Your task to perform on an android device: What is the news today? Image 0: 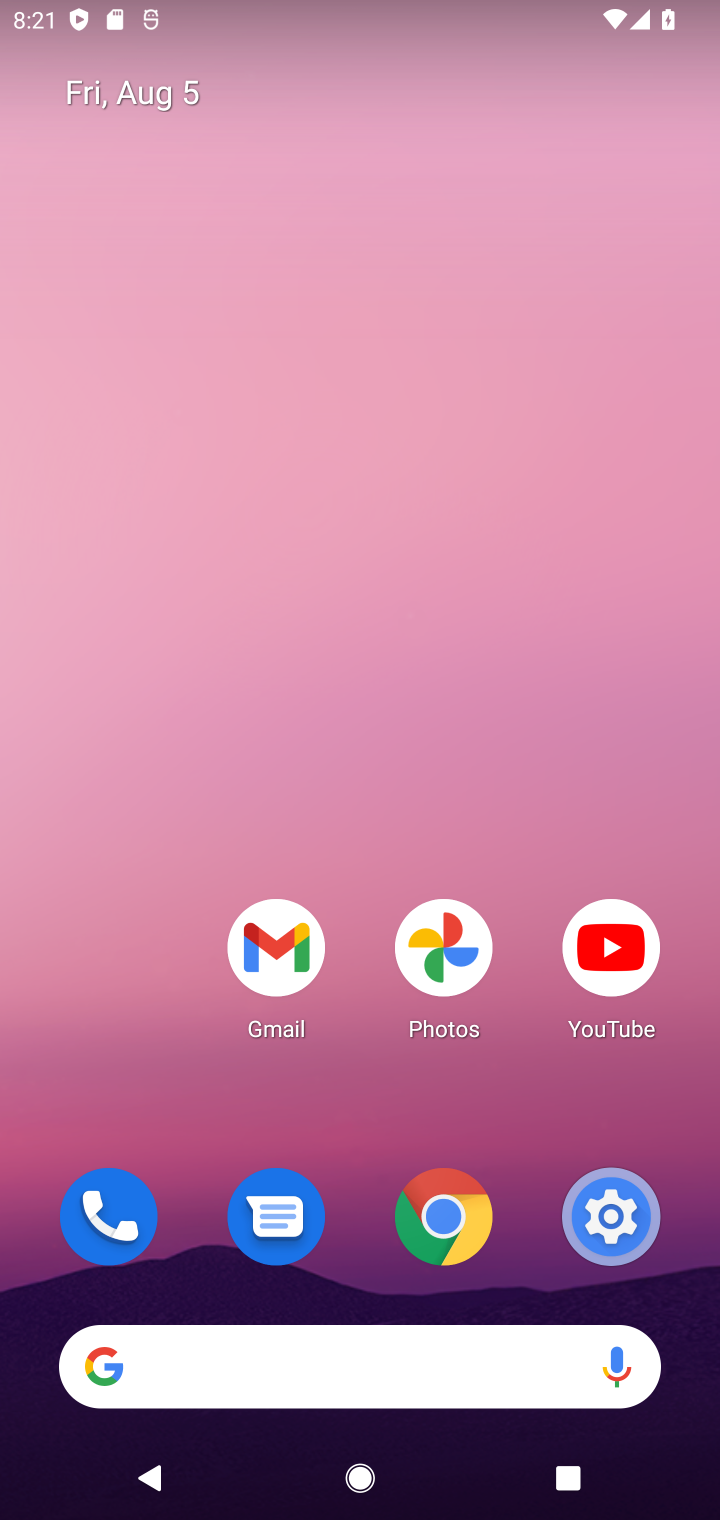
Step 0: click (473, 353)
Your task to perform on an android device: What is the news today? Image 1: 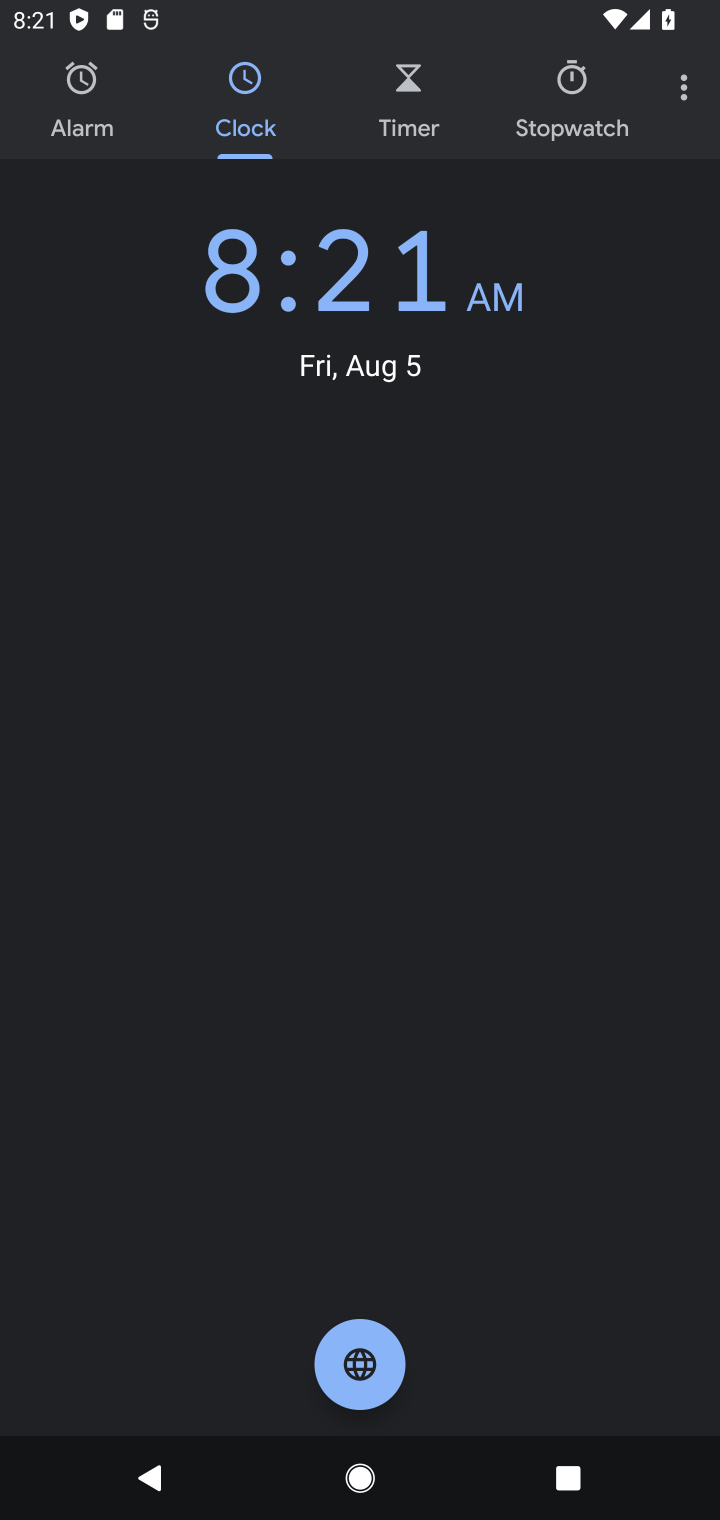
Step 1: drag from (357, 1193) to (488, 320)
Your task to perform on an android device: What is the news today? Image 2: 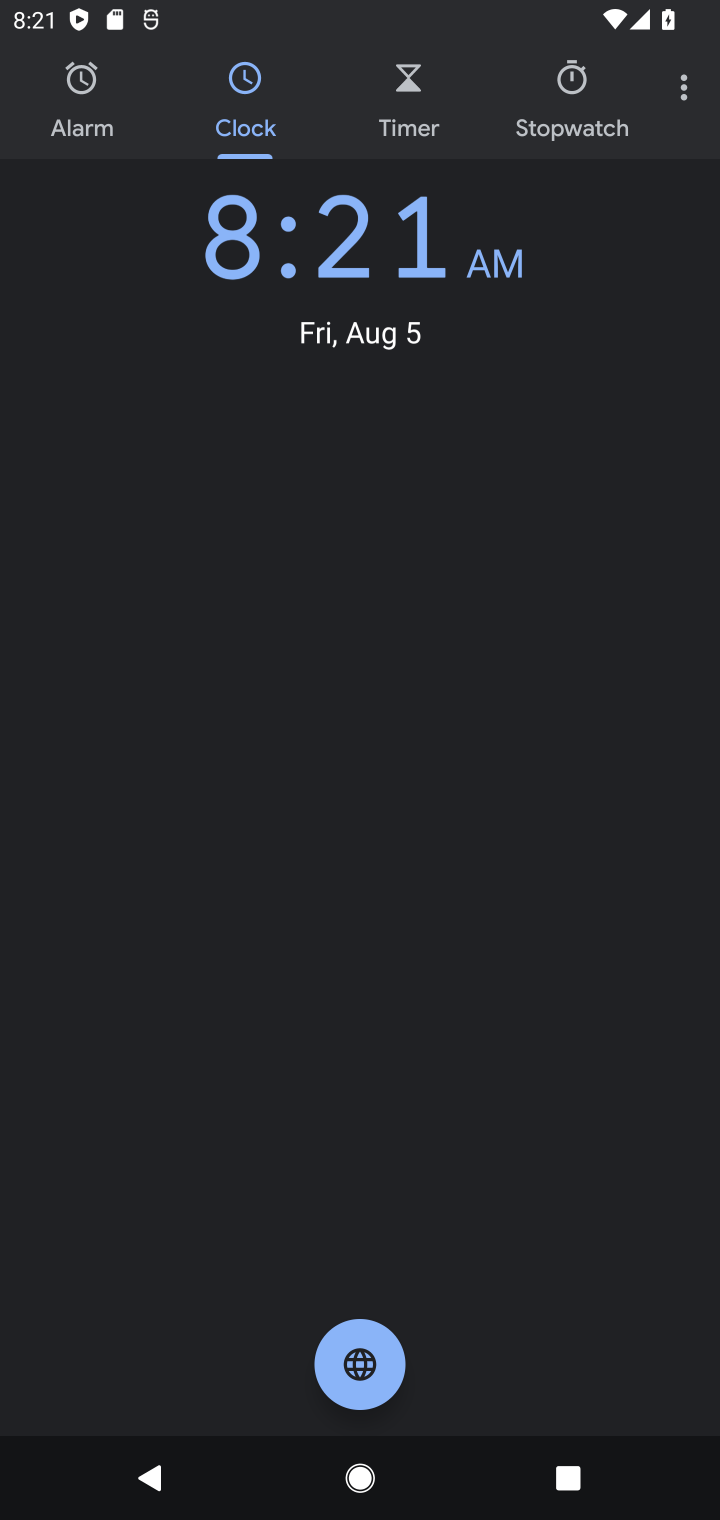
Step 2: press home button
Your task to perform on an android device: What is the news today? Image 3: 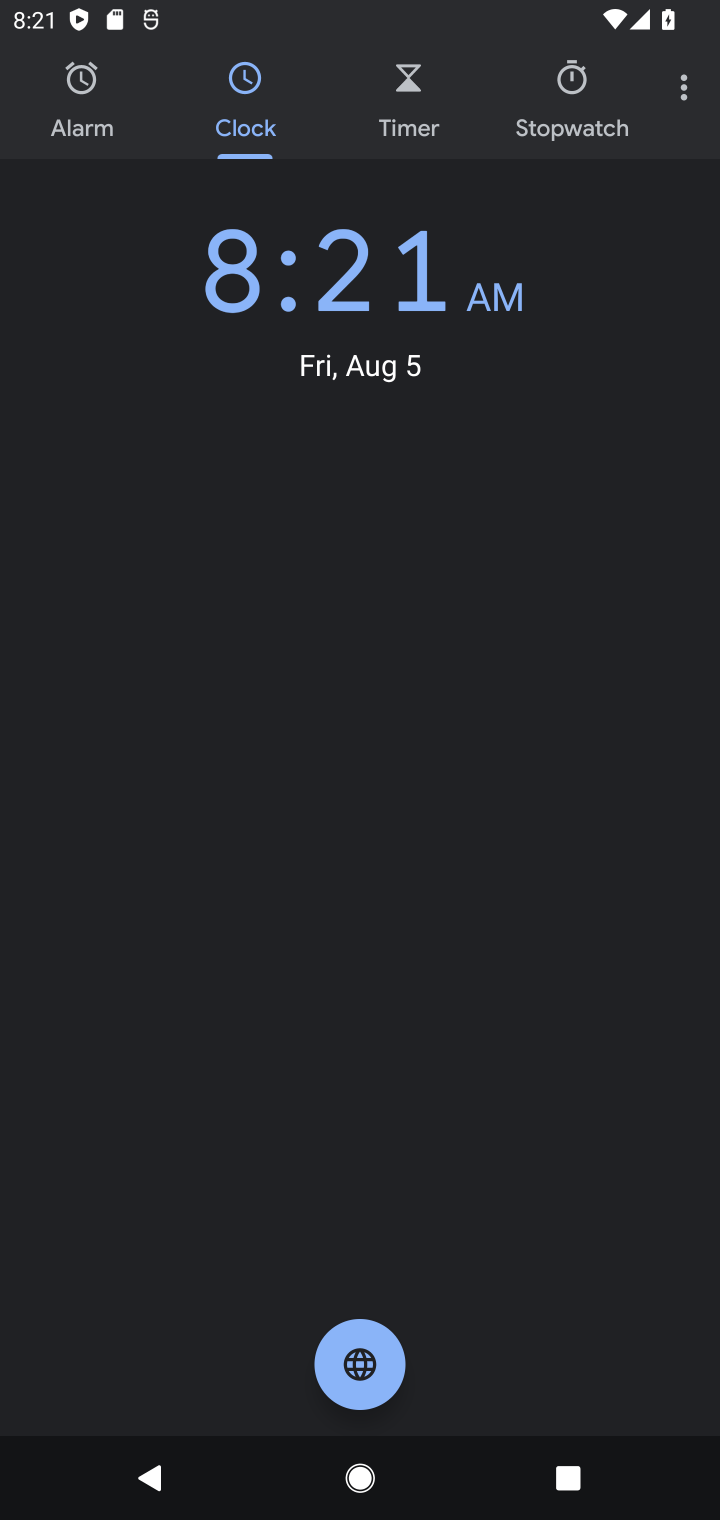
Step 3: drag from (399, 1068) to (554, 119)
Your task to perform on an android device: What is the news today? Image 4: 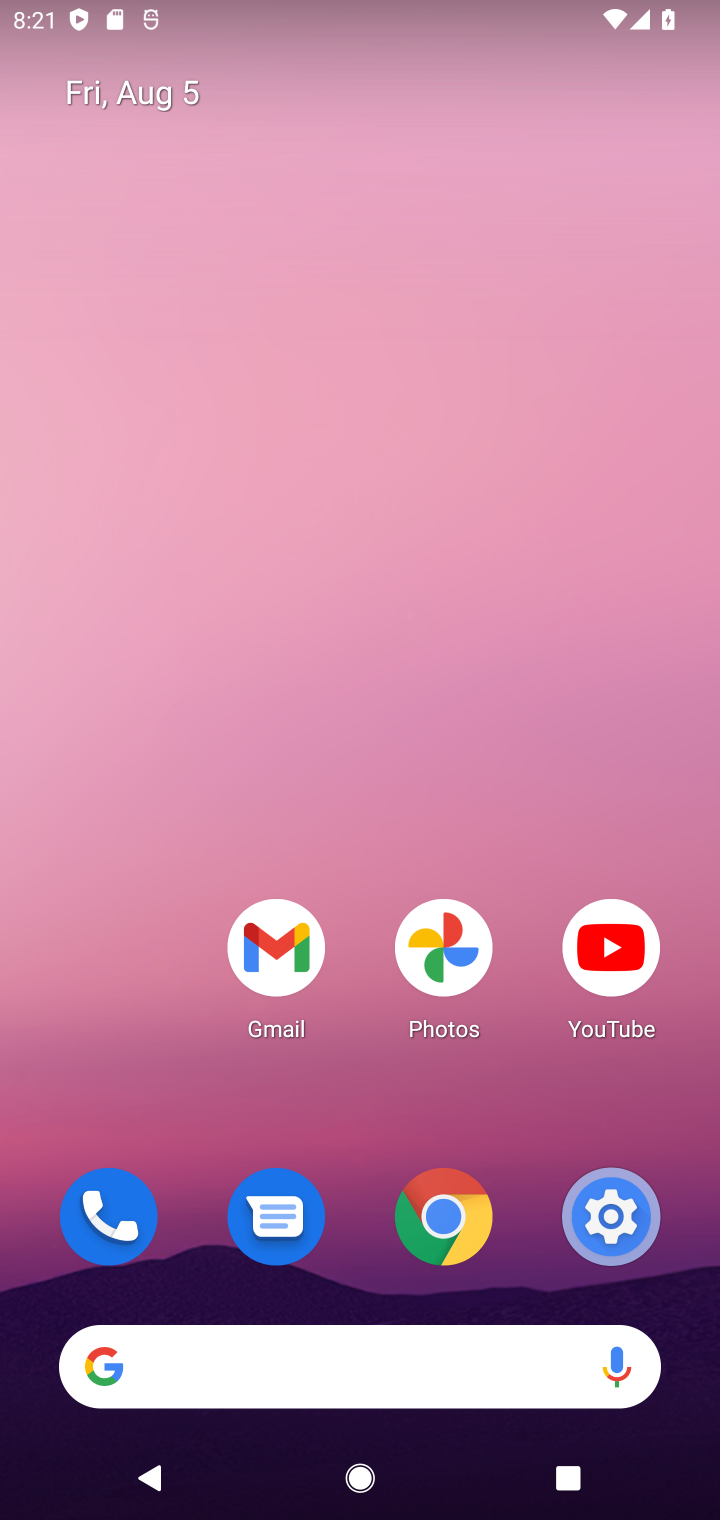
Step 4: drag from (354, 1239) to (385, 199)
Your task to perform on an android device: What is the news today? Image 5: 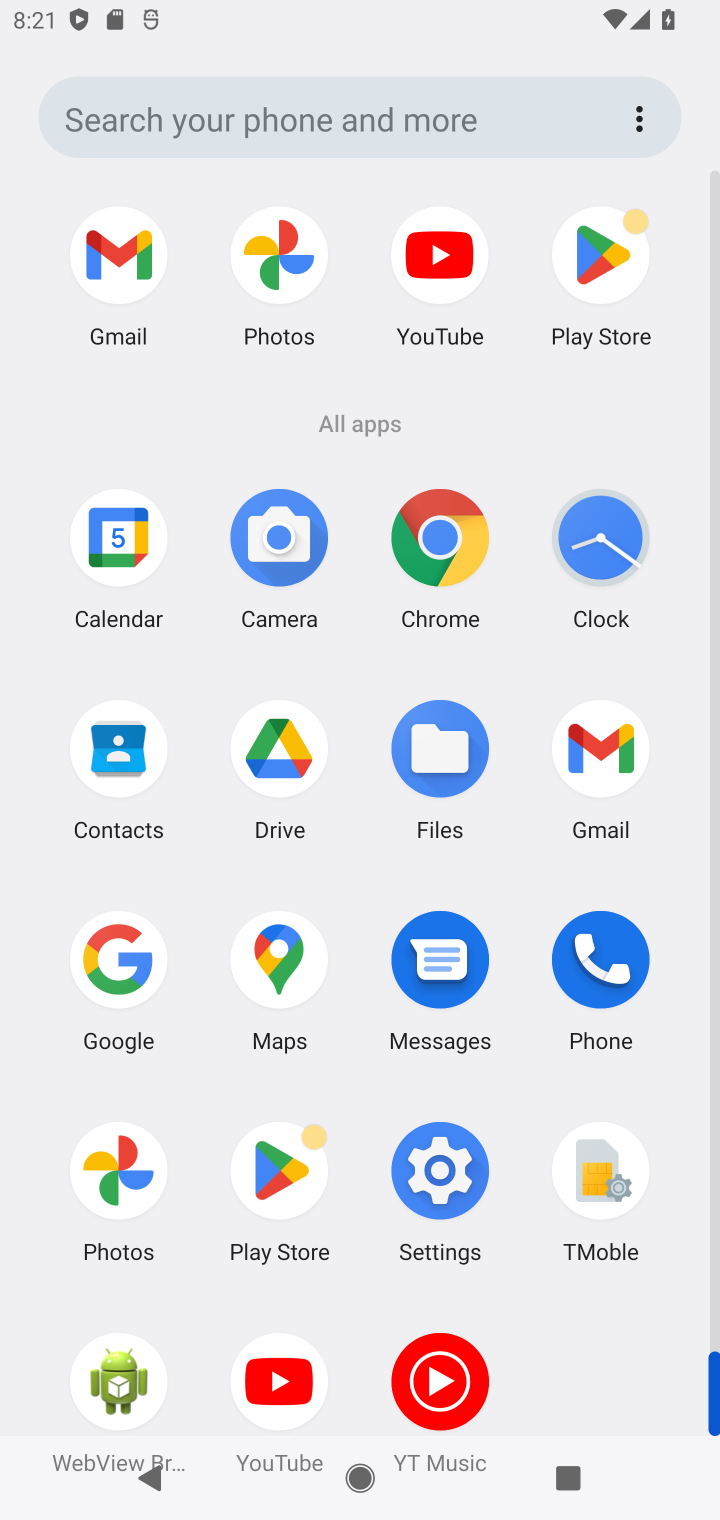
Step 5: click (318, 139)
Your task to perform on an android device: What is the news today? Image 6: 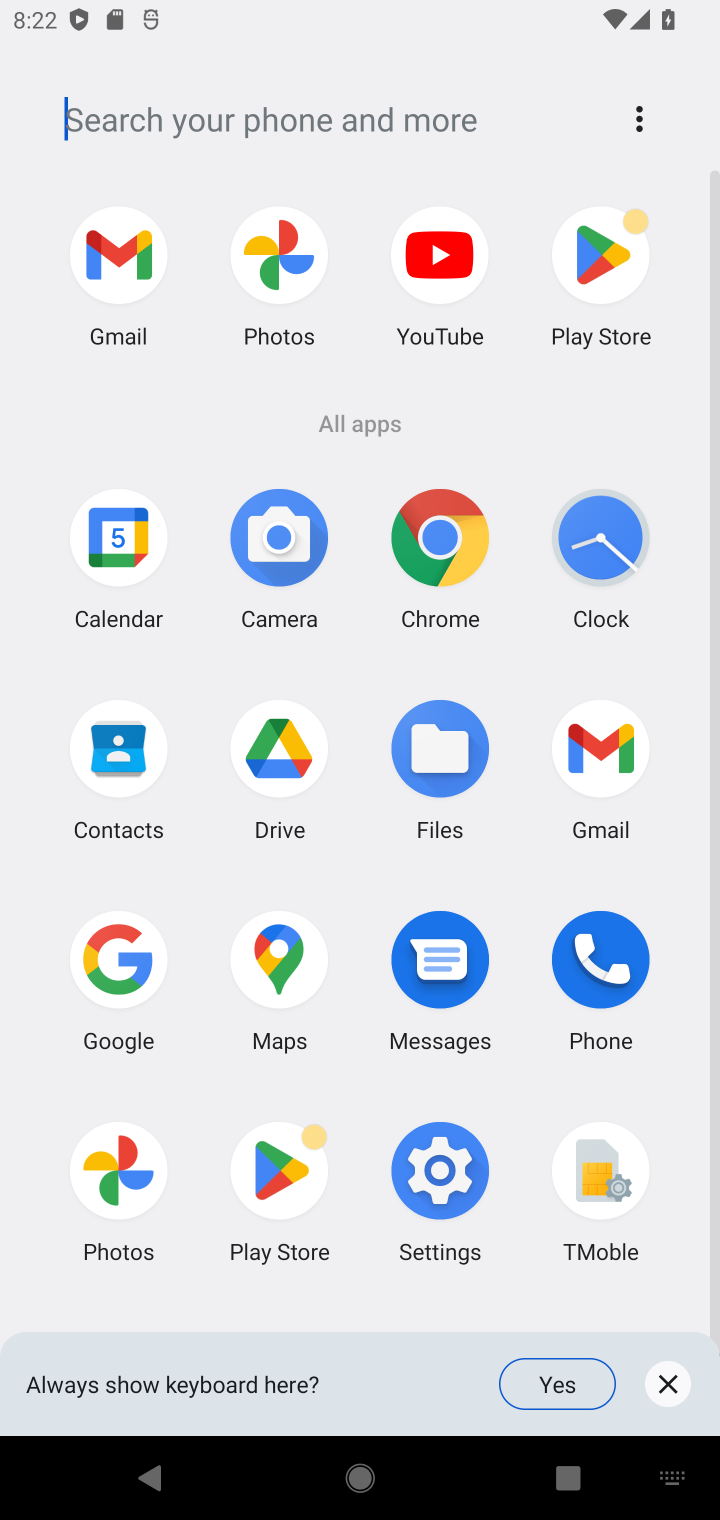
Step 6: click (142, 133)
Your task to perform on an android device: What is the news today? Image 7: 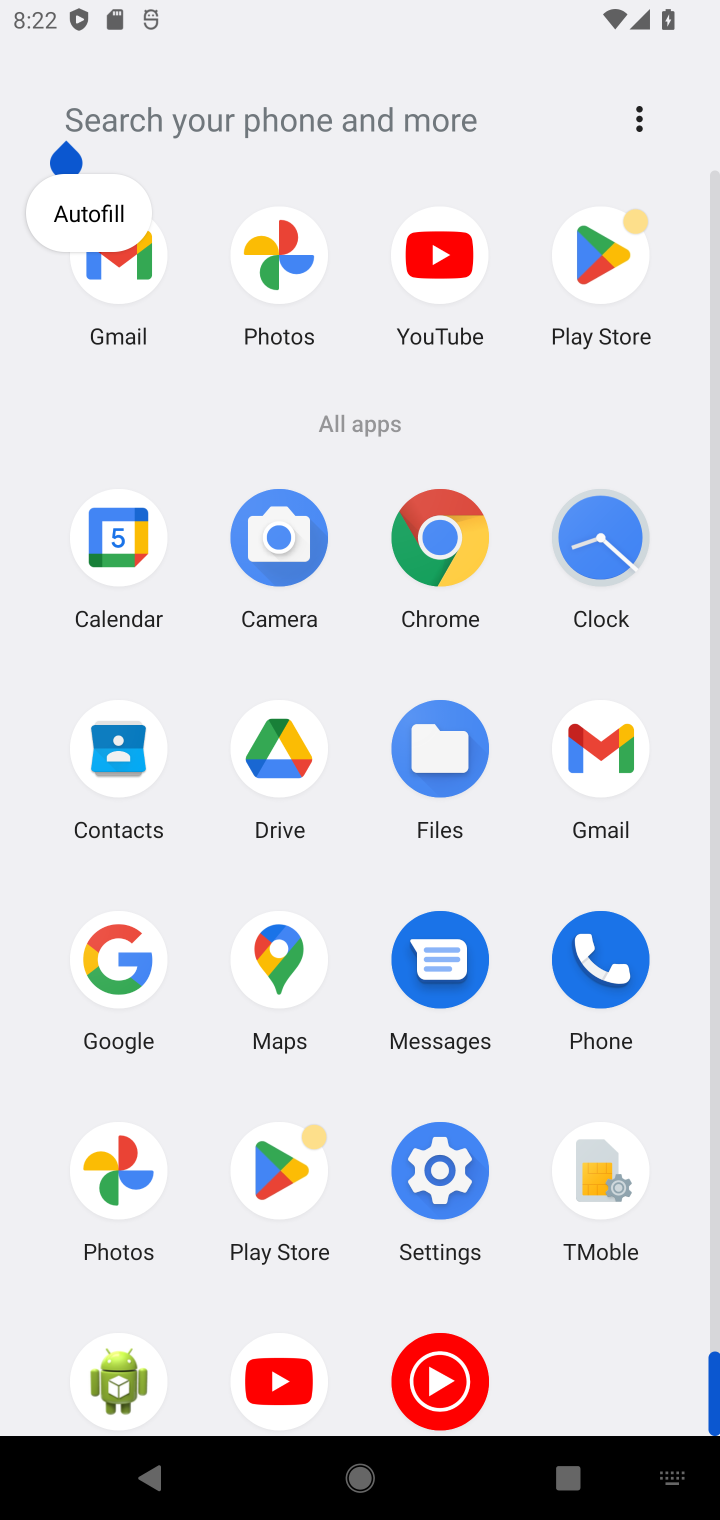
Step 7: type "news today?"
Your task to perform on an android device: What is the news today? Image 8: 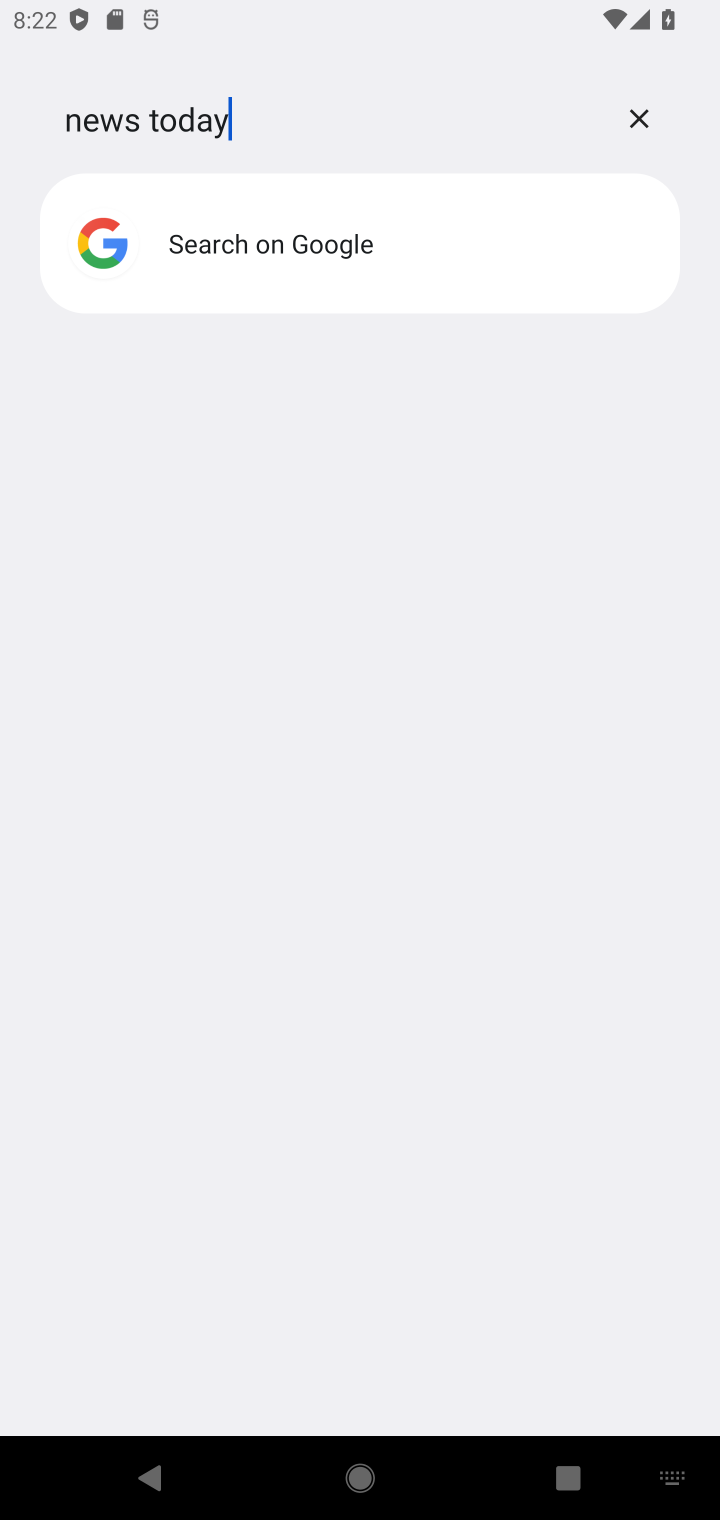
Step 8: type ""
Your task to perform on an android device: What is the news today? Image 9: 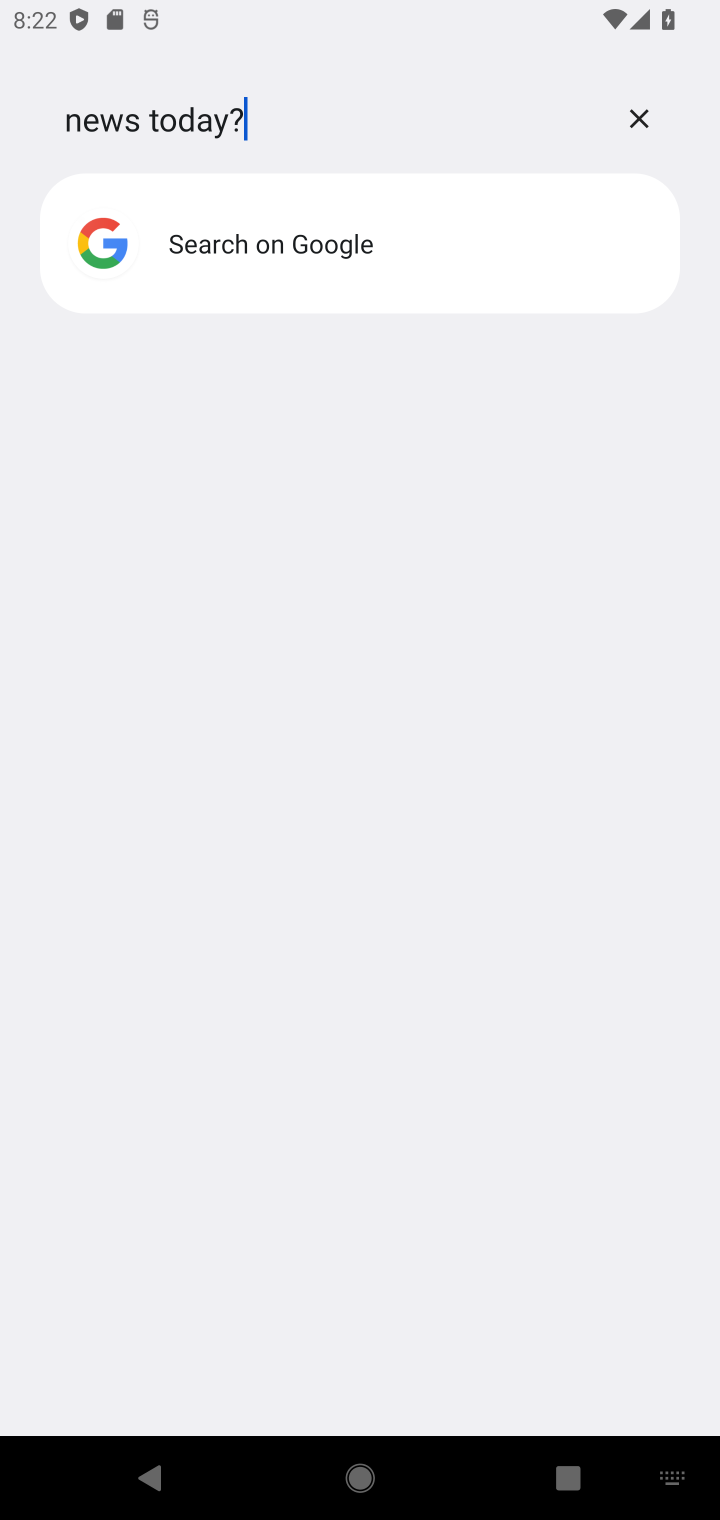
Step 9: click (254, 209)
Your task to perform on an android device: What is the news today? Image 10: 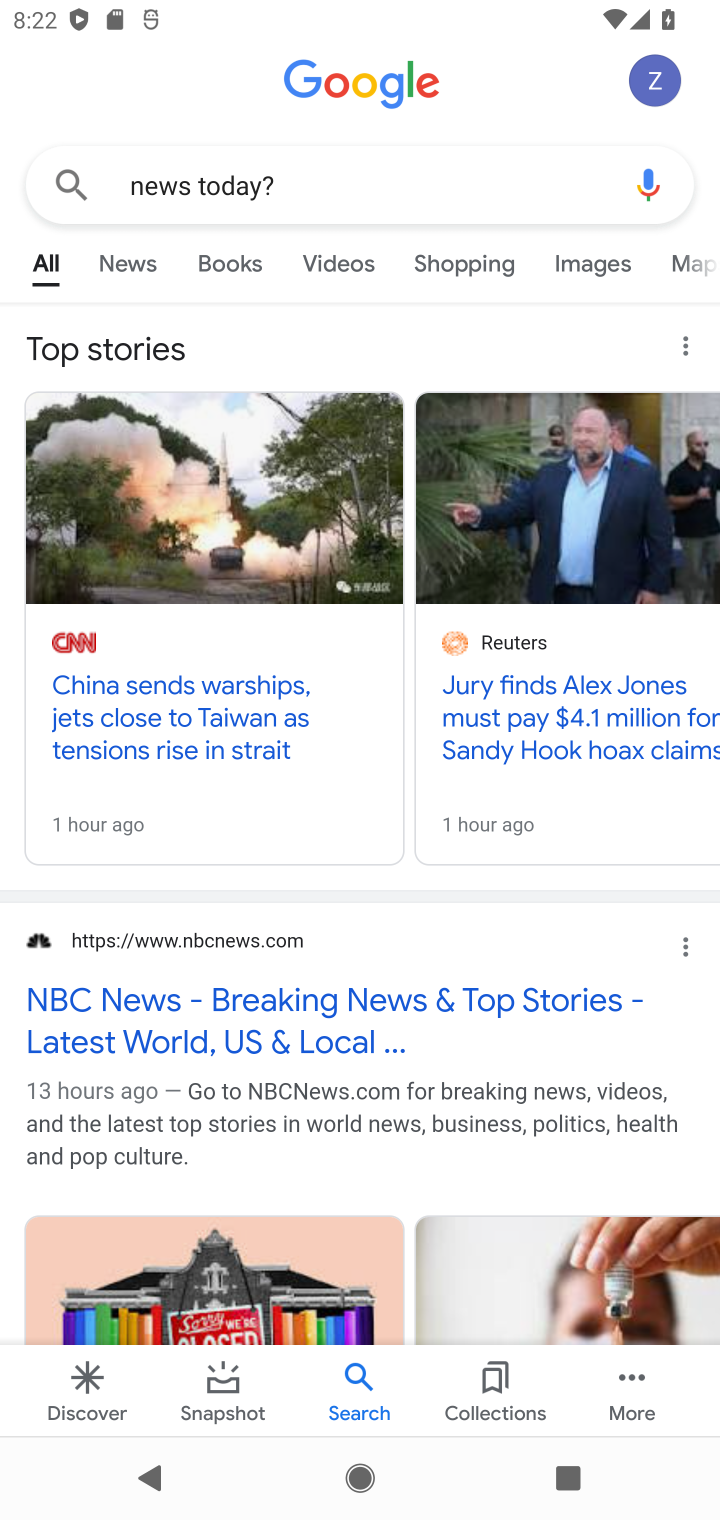
Step 10: task complete